Your task to perform on an android device: delete browsing data in the chrome app Image 0: 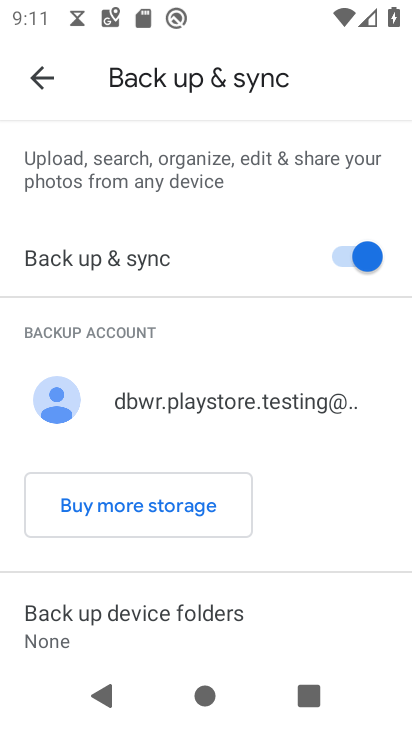
Step 0: press home button
Your task to perform on an android device: delete browsing data in the chrome app Image 1: 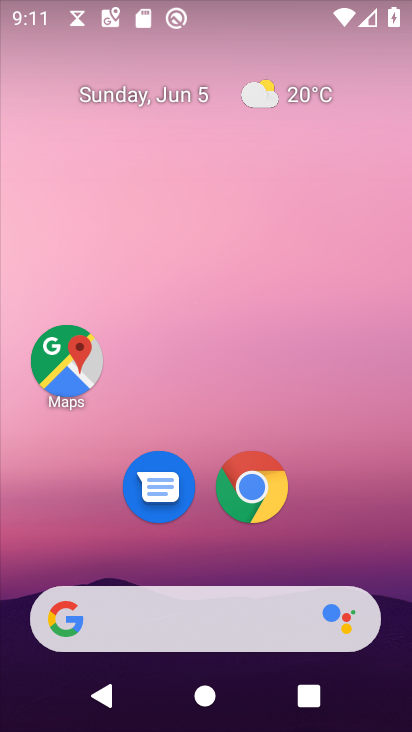
Step 1: click (248, 485)
Your task to perform on an android device: delete browsing data in the chrome app Image 2: 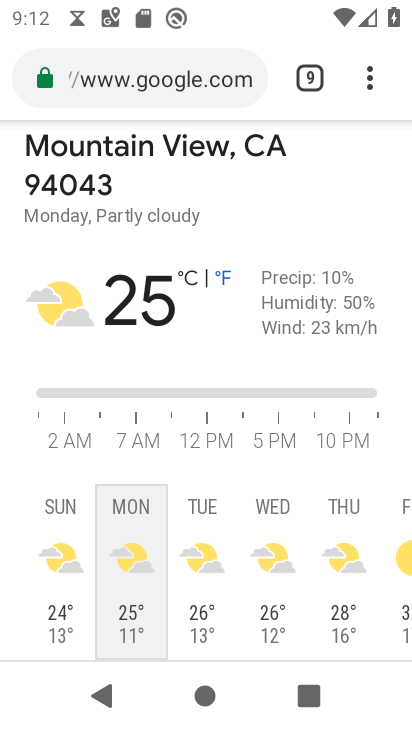
Step 2: click (365, 71)
Your task to perform on an android device: delete browsing data in the chrome app Image 3: 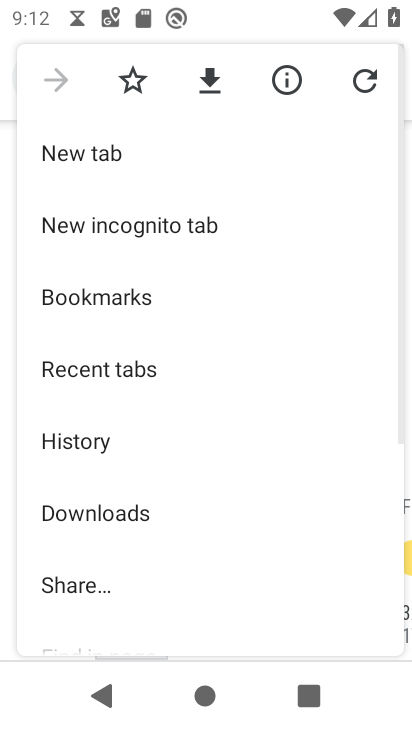
Step 3: drag from (130, 581) to (173, 266)
Your task to perform on an android device: delete browsing data in the chrome app Image 4: 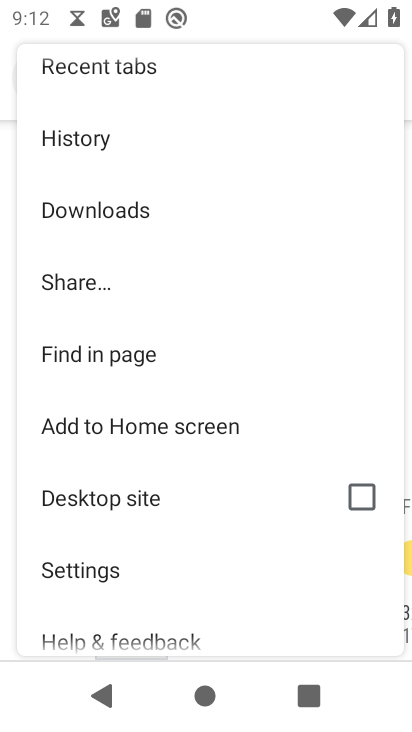
Step 4: click (104, 573)
Your task to perform on an android device: delete browsing data in the chrome app Image 5: 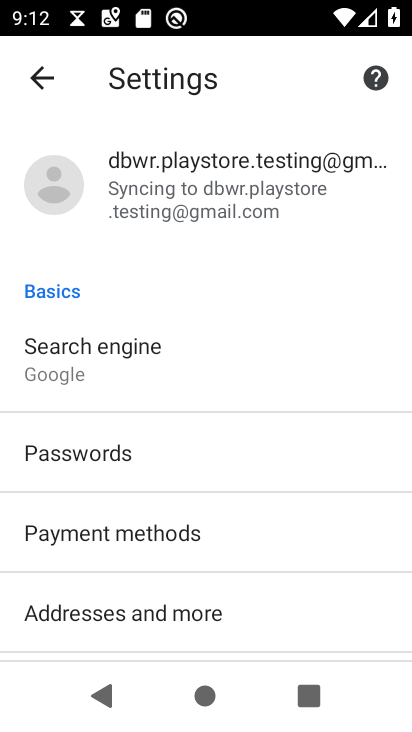
Step 5: drag from (174, 574) to (201, 204)
Your task to perform on an android device: delete browsing data in the chrome app Image 6: 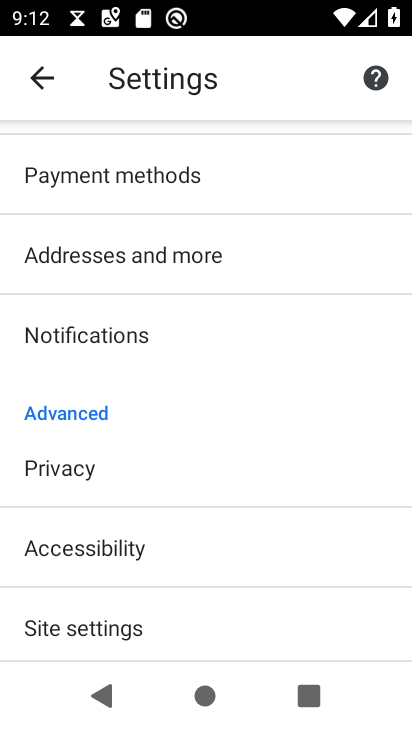
Step 6: drag from (190, 483) to (224, 284)
Your task to perform on an android device: delete browsing data in the chrome app Image 7: 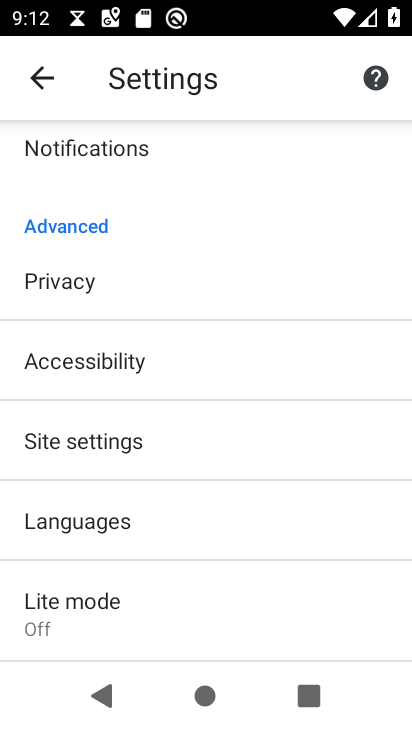
Step 7: click (91, 273)
Your task to perform on an android device: delete browsing data in the chrome app Image 8: 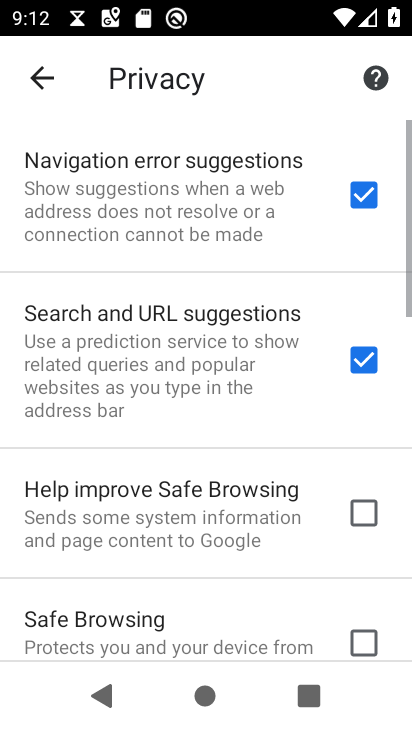
Step 8: drag from (163, 571) to (234, 95)
Your task to perform on an android device: delete browsing data in the chrome app Image 9: 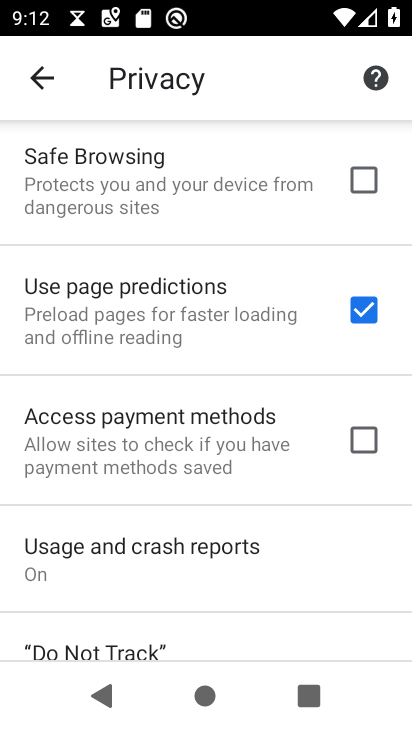
Step 9: drag from (238, 388) to (264, 58)
Your task to perform on an android device: delete browsing data in the chrome app Image 10: 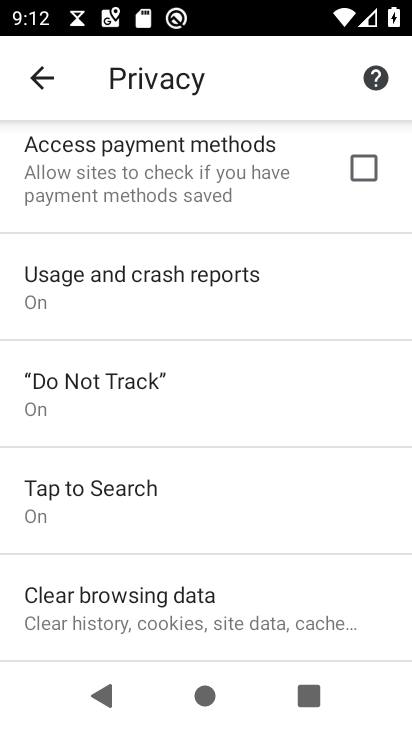
Step 10: click (241, 586)
Your task to perform on an android device: delete browsing data in the chrome app Image 11: 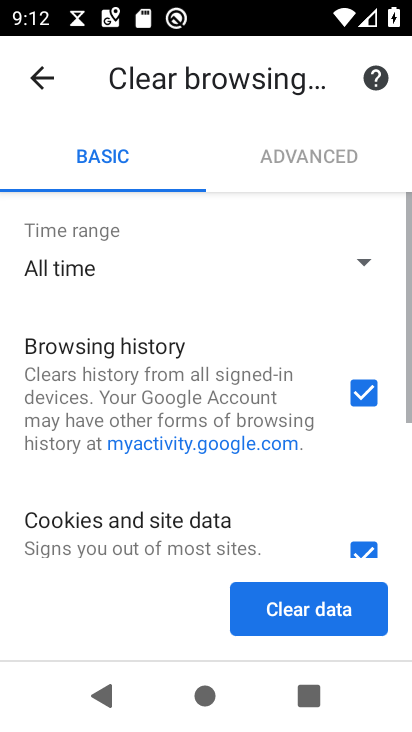
Step 11: click (286, 601)
Your task to perform on an android device: delete browsing data in the chrome app Image 12: 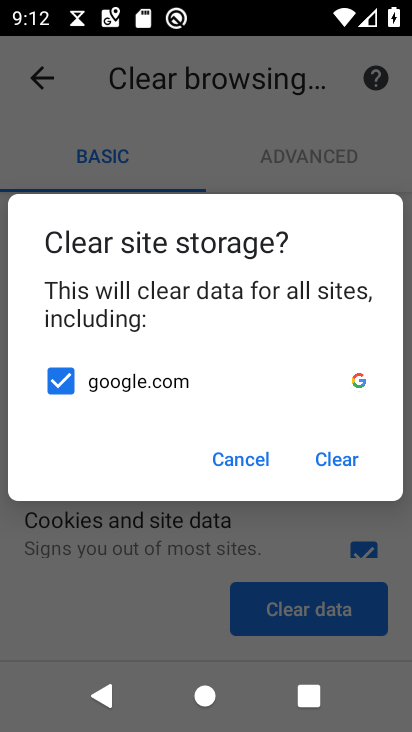
Step 12: click (335, 433)
Your task to perform on an android device: delete browsing data in the chrome app Image 13: 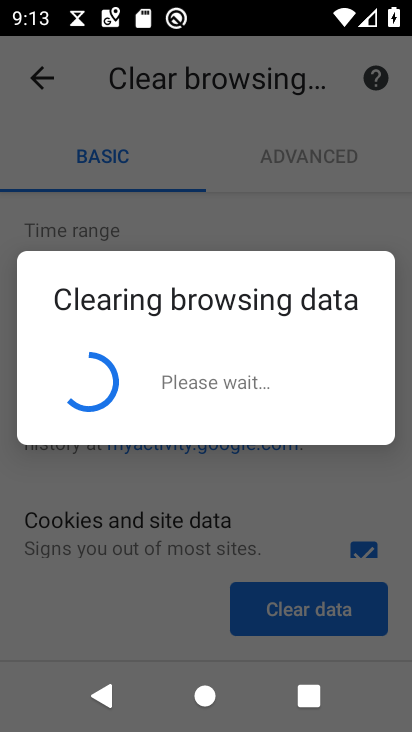
Step 13: task complete